Your task to perform on an android device: set default search engine in the chrome app Image 0: 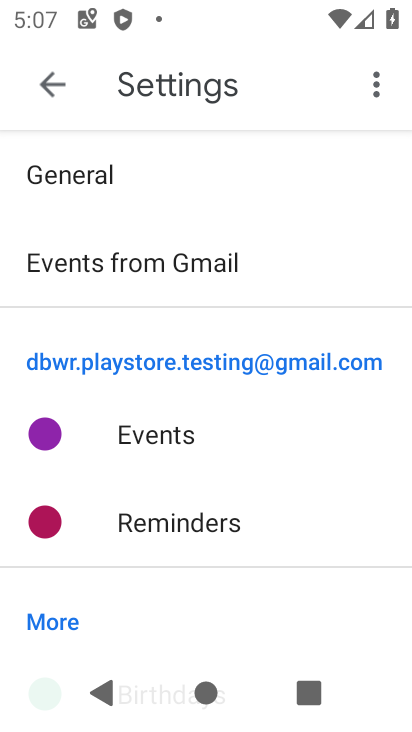
Step 0: press home button
Your task to perform on an android device: set default search engine in the chrome app Image 1: 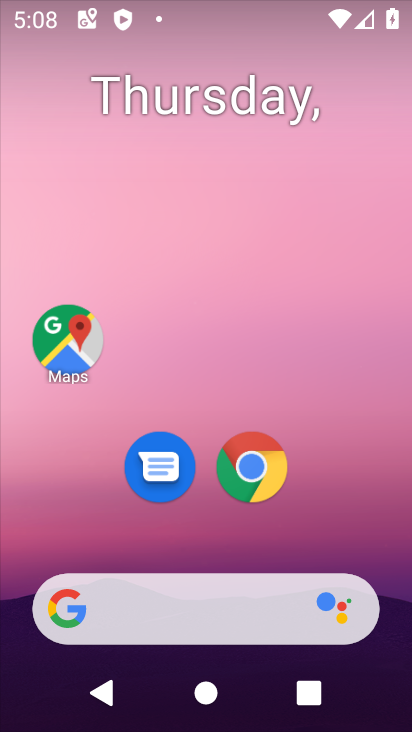
Step 1: click (257, 479)
Your task to perform on an android device: set default search engine in the chrome app Image 2: 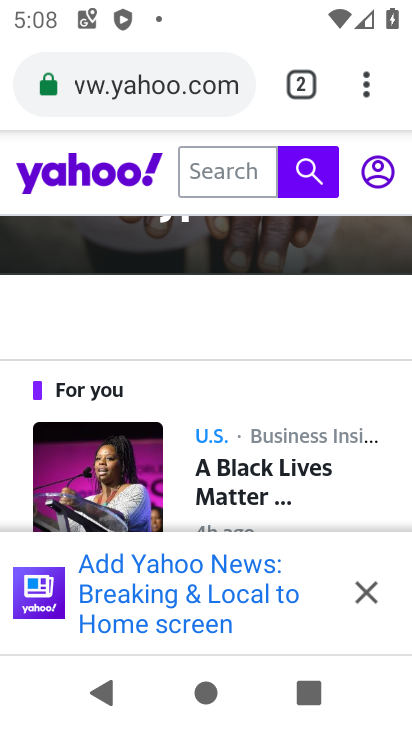
Step 2: click (377, 93)
Your task to perform on an android device: set default search engine in the chrome app Image 3: 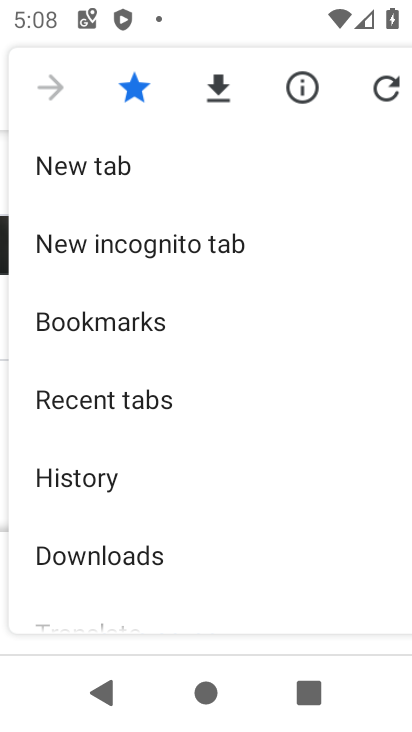
Step 3: drag from (165, 557) to (169, 200)
Your task to perform on an android device: set default search engine in the chrome app Image 4: 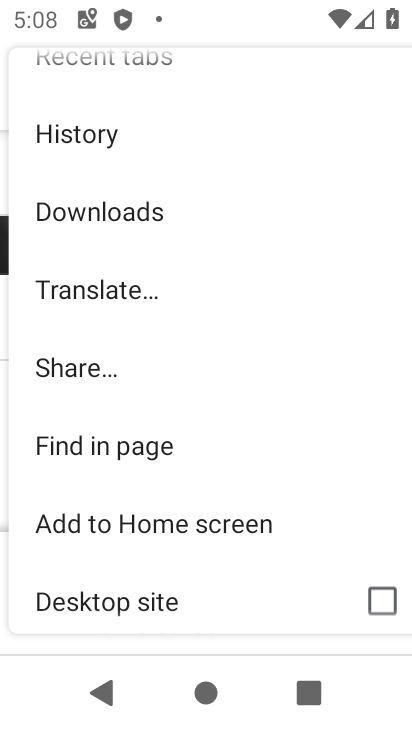
Step 4: drag from (210, 621) to (190, 209)
Your task to perform on an android device: set default search engine in the chrome app Image 5: 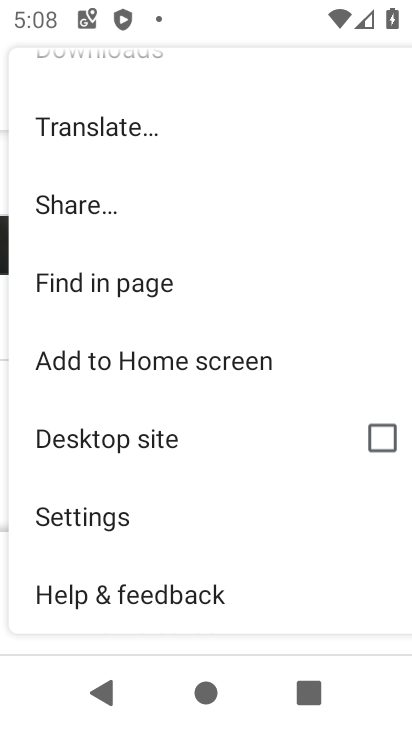
Step 5: click (159, 540)
Your task to perform on an android device: set default search engine in the chrome app Image 6: 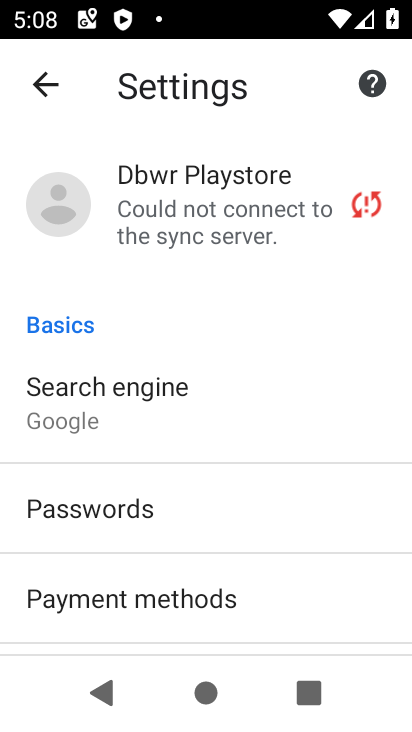
Step 6: drag from (205, 574) to (200, 511)
Your task to perform on an android device: set default search engine in the chrome app Image 7: 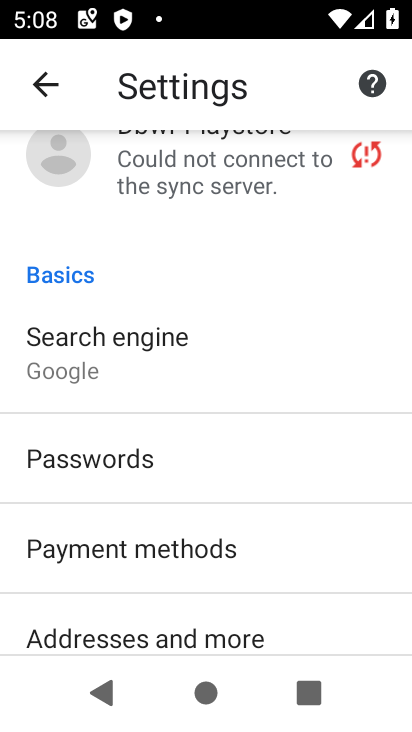
Step 7: click (159, 382)
Your task to perform on an android device: set default search engine in the chrome app Image 8: 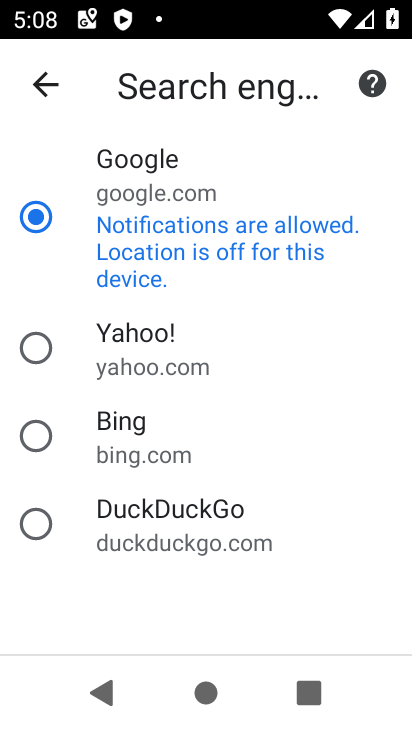
Step 8: click (163, 350)
Your task to perform on an android device: set default search engine in the chrome app Image 9: 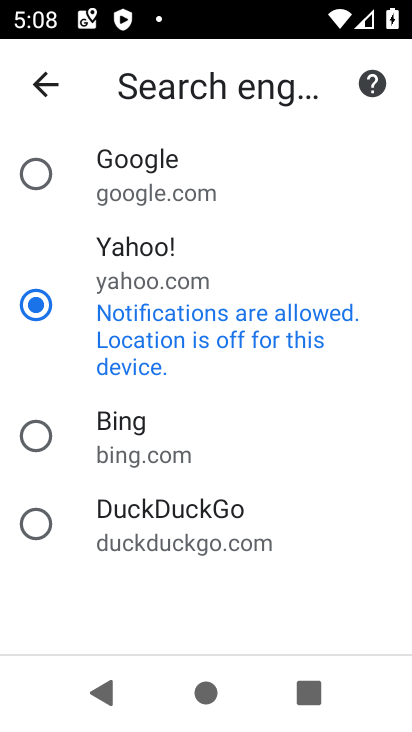
Step 9: task complete